Your task to perform on an android device: change the clock display to analog Image 0: 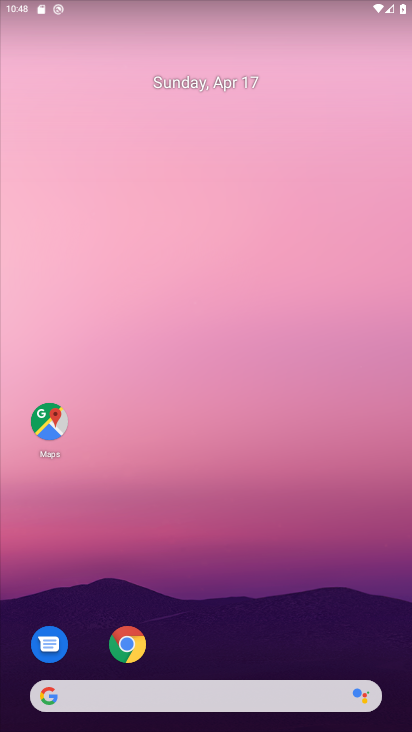
Step 0: drag from (213, 657) to (280, 2)
Your task to perform on an android device: change the clock display to analog Image 1: 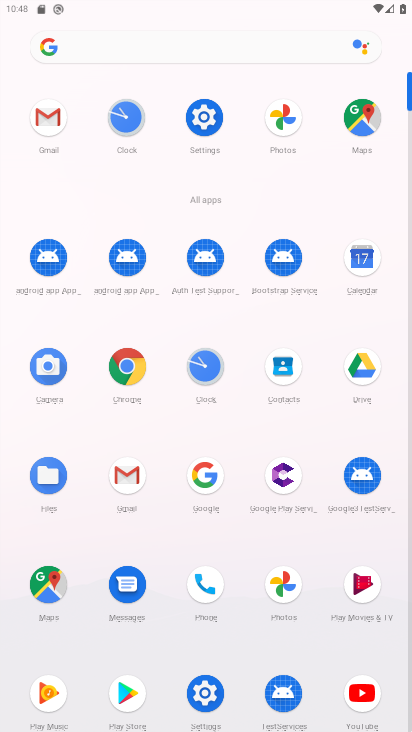
Step 1: click (214, 357)
Your task to perform on an android device: change the clock display to analog Image 2: 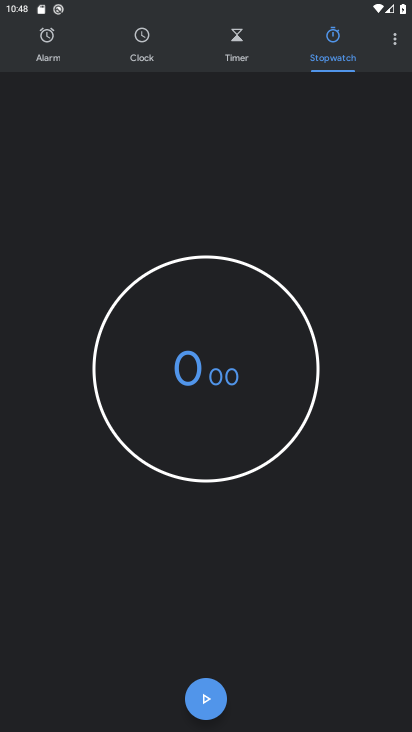
Step 2: click (394, 45)
Your task to perform on an android device: change the clock display to analog Image 3: 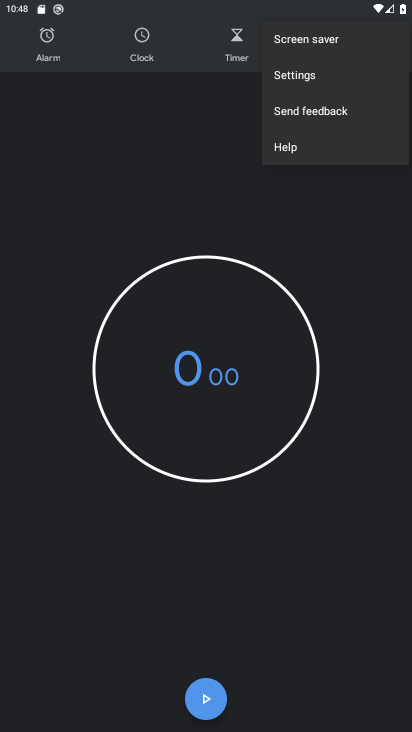
Step 3: click (308, 75)
Your task to perform on an android device: change the clock display to analog Image 4: 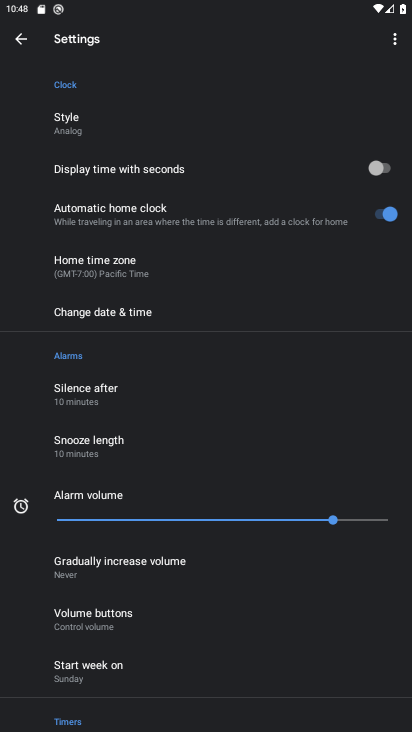
Step 4: click (83, 132)
Your task to perform on an android device: change the clock display to analog Image 5: 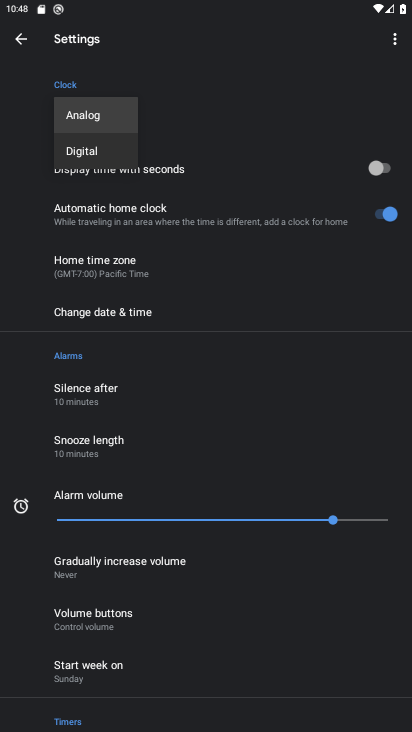
Step 5: task complete